Your task to perform on an android device: Open the calendar and show me this week's events? Image 0: 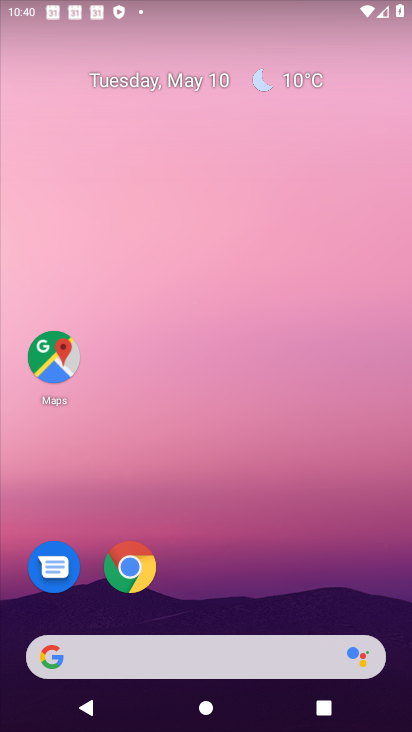
Step 0: drag from (186, 589) to (212, 75)
Your task to perform on an android device: Open the calendar and show me this week's events? Image 1: 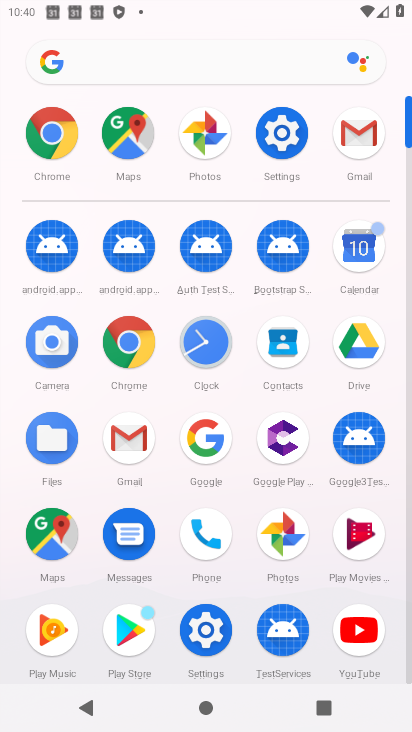
Step 1: click (357, 234)
Your task to perform on an android device: Open the calendar and show me this week's events? Image 2: 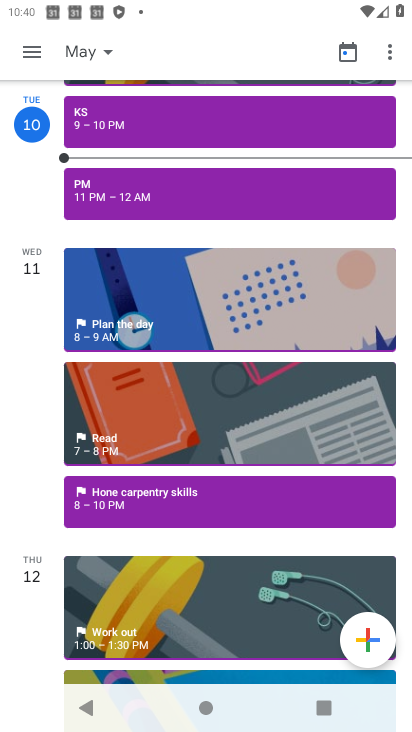
Step 2: click (95, 51)
Your task to perform on an android device: Open the calendar and show me this week's events? Image 3: 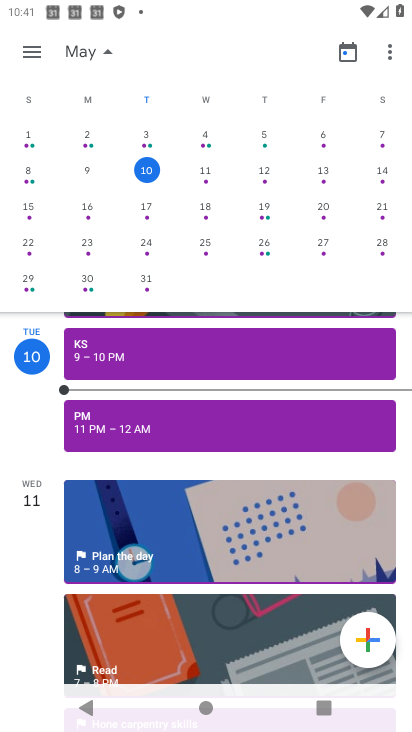
Step 3: click (205, 166)
Your task to perform on an android device: Open the calendar and show me this week's events? Image 4: 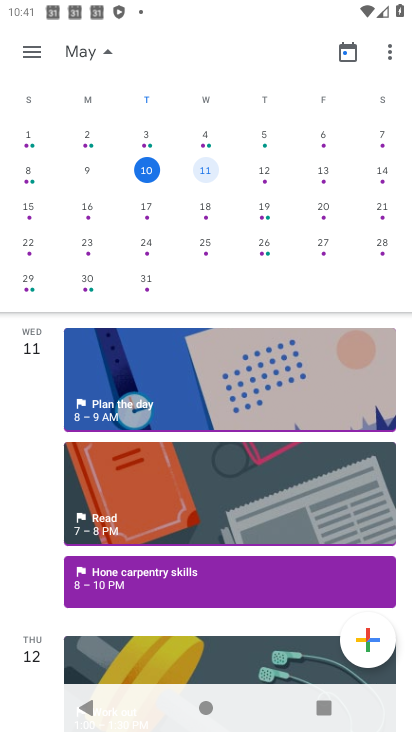
Step 4: click (384, 178)
Your task to perform on an android device: Open the calendar and show me this week's events? Image 5: 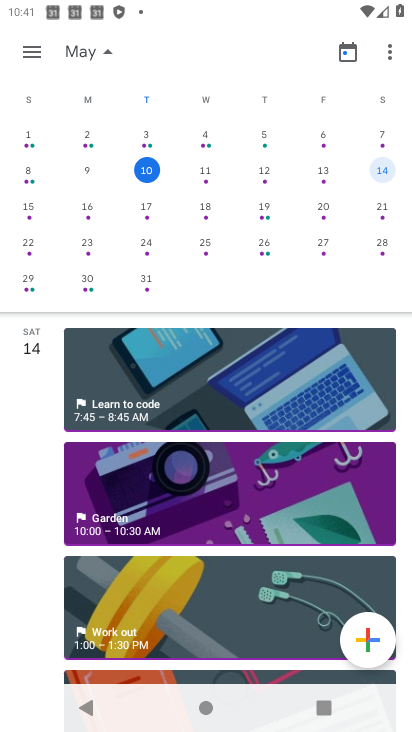
Step 5: task complete